Your task to perform on an android device: see sites visited before in the chrome app Image 0: 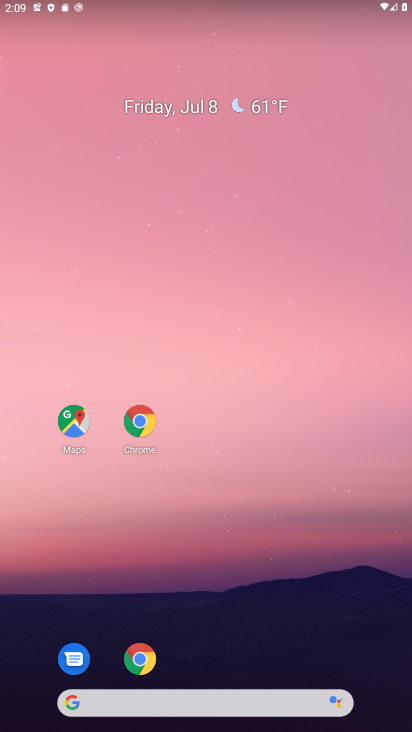
Step 0: click (189, 118)
Your task to perform on an android device: see sites visited before in the chrome app Image 1: 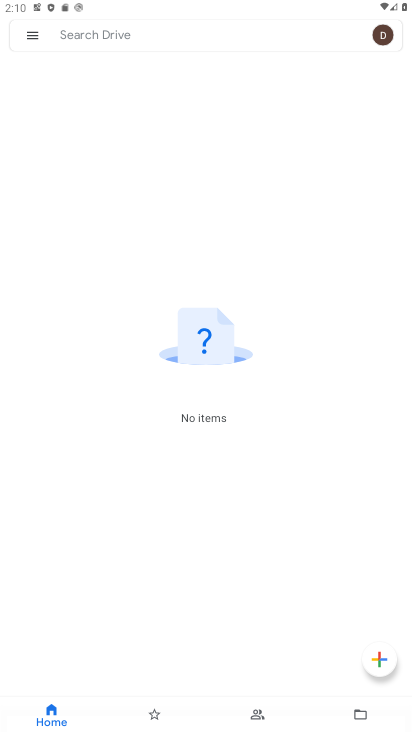
Step 1: press home button
Your task to perform on an android device: see sites visited before in the chrome app Image 2: 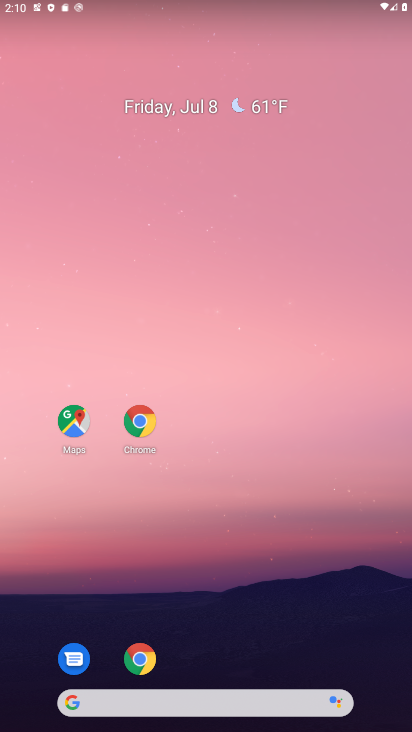
Step 2: drag from (219, 674) to (184, 141)
Your task to perform on an android device: see sites visited before in the chrome app Image 3: 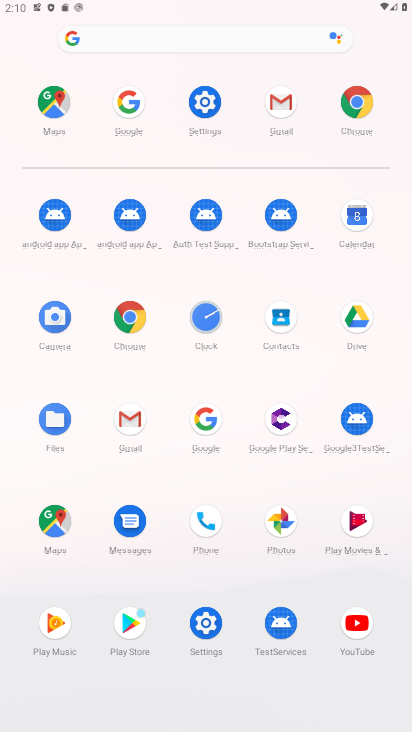
Step 3: click (118, 320)
Your task to perform on an android device: see sites visited before in the chrome app Image 4: 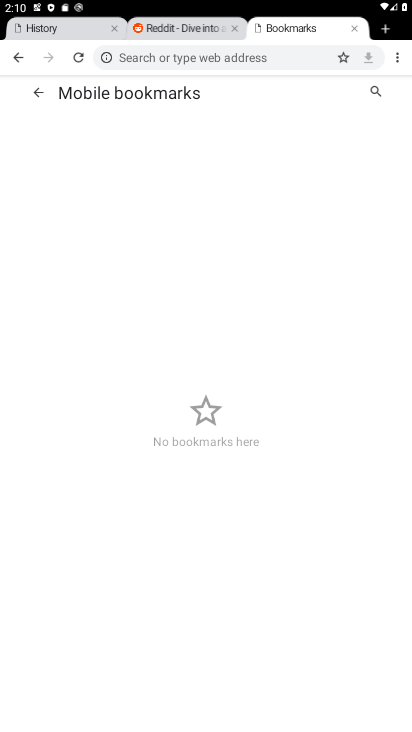
Step 4: drag from (87, 170) to (126, 505)
Your task to perform on an android device: see sites visited before in the chrome app Image 5: 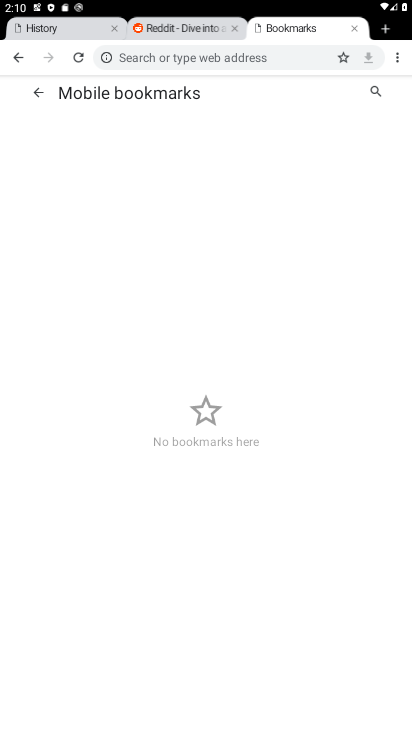
Step 5: click (394, 54)
Your task to perform on an android device: see sites visited before in the chrome app Image 6: 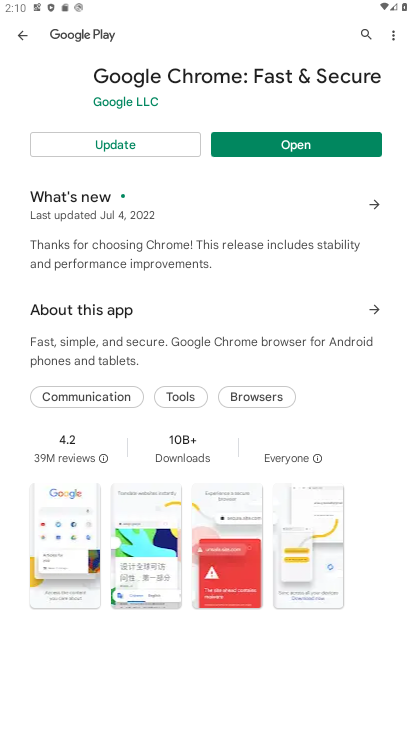
Step 6: task complete